Your task to perform on an android device: show emergency info Image 0: 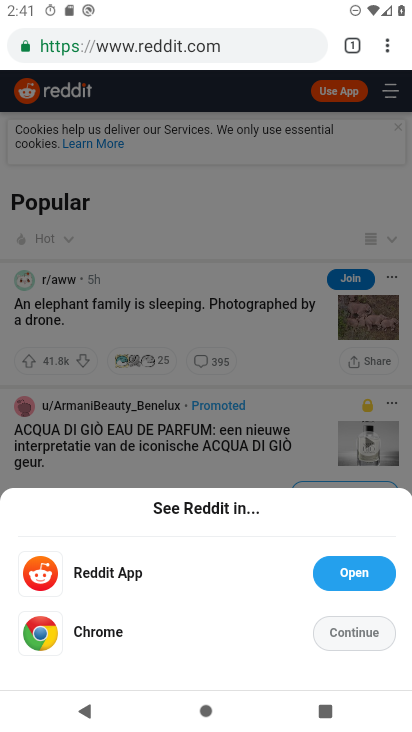
Step 0: press home button
Your task to perform on an android device: show emergency info Image 1: 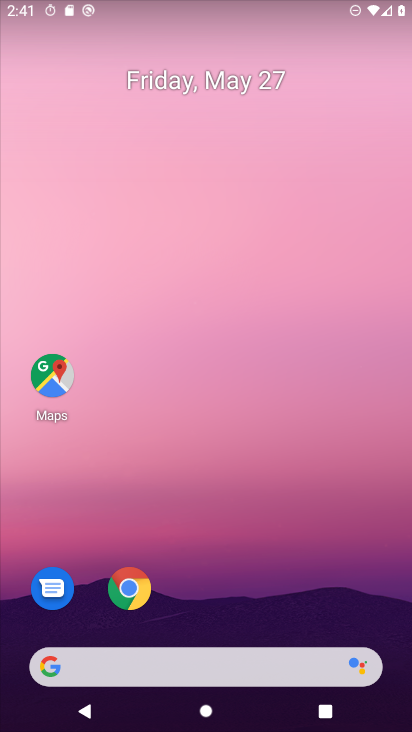
Step 1: click (232, 41)
Your task to perform on an android device: show emergency info Image 2: 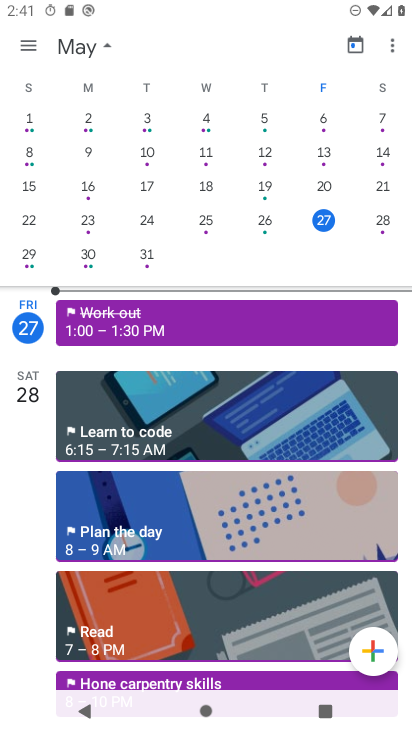
Step 2: press home button
Your task to perform on an android device: show emergency info Image 3: 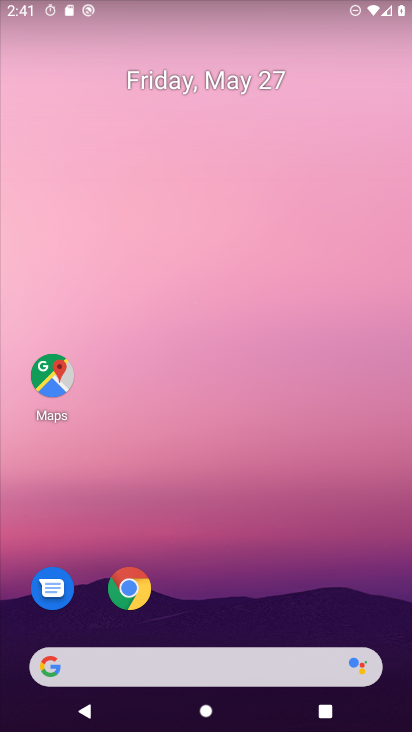
Step 3: drag from (180, 617) to (141, 0)
Your task to perform on an android device: show emergency info Image 4: 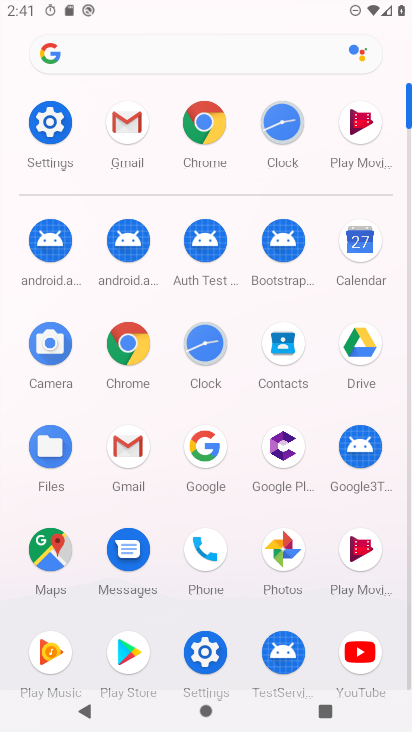
Step 4: click (55, 129)
Your task to perform on an android device: show emergency info Image 5: 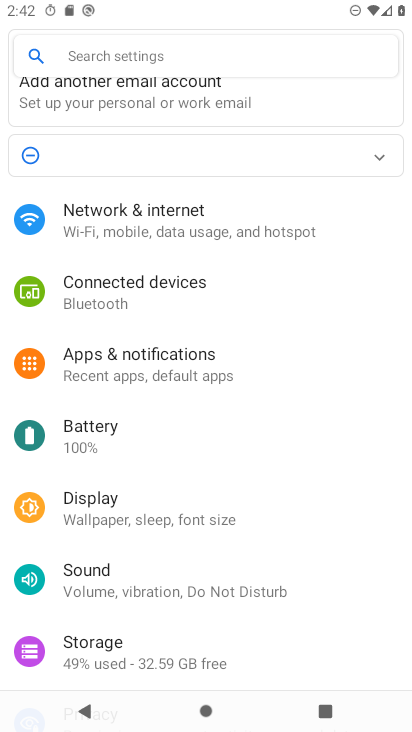
Step 5: drag from (128, 562) to (111, 33)
Your task to perform on an android device: show emergency info Image 6: 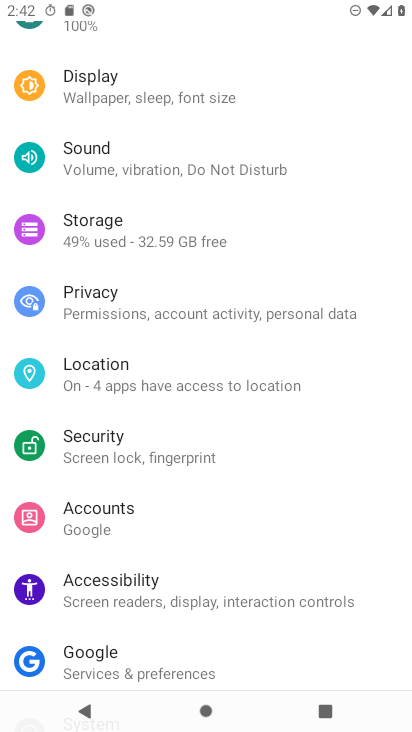
Step 6: drag from (131, 594) to (17, 168)
Your task to perform on an android device: show emergency info Image 7: 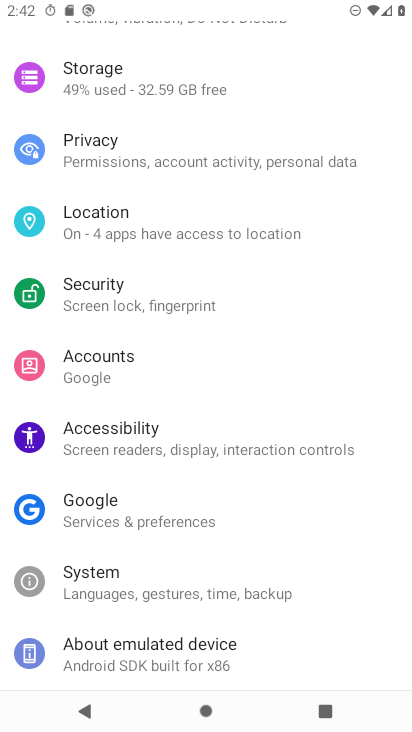
Step 7: click (119, 647)
Your task to perform on an android device: show emergency info Image 8: 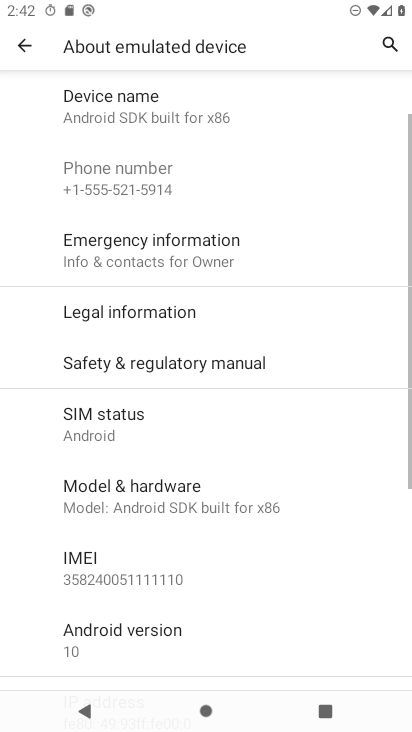
Step 8: click (119, 253)
Your task to perform on an android device: show emergency info Image 9: 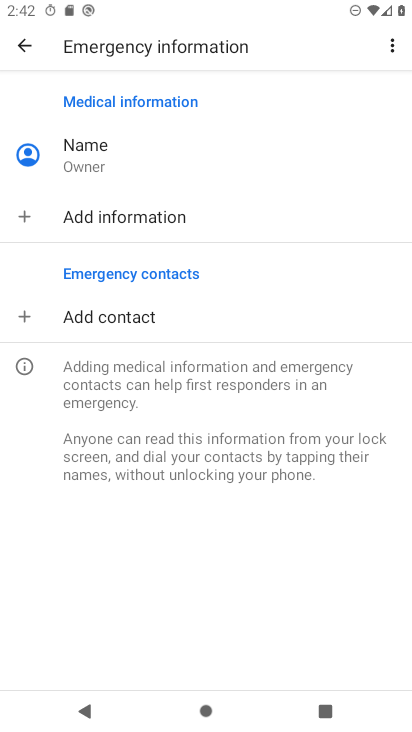
Step 9: task complete